Your task to perform on an android device: Go to internet settings Image 0: 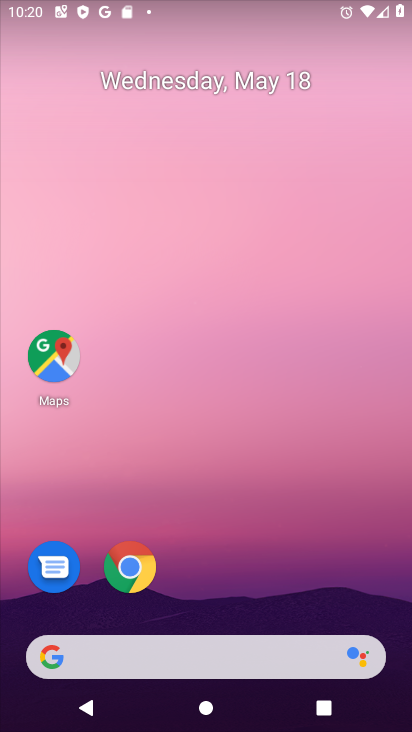
Step 0: drag from (171, 661) to (172, 196)
Your task to perform on an android device: Go to internet settings Image 1: 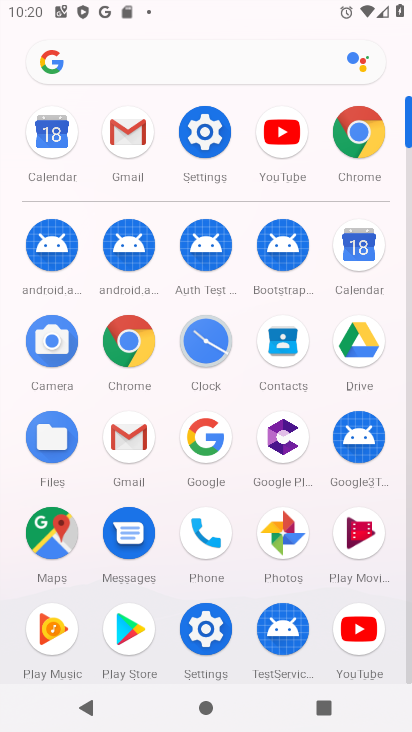
Step 1: click (190, 146)
Your task to perform on an android device: Go to internet settings Image 2: 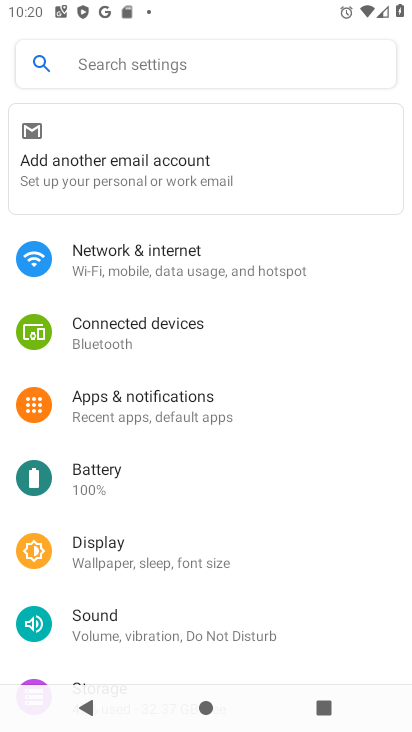
Step 2: click (115, 263)
Your task to perform on an android device: Go to internet settings Image 3: 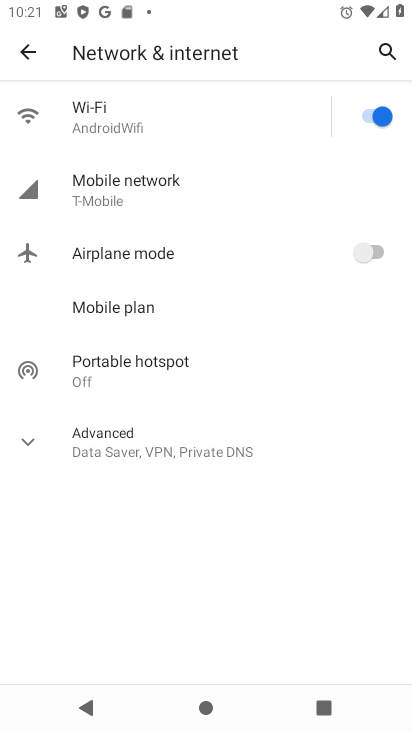
Step 3: task complete